Your task to perform on an android device: Find coffee shops on Maps Image 0: 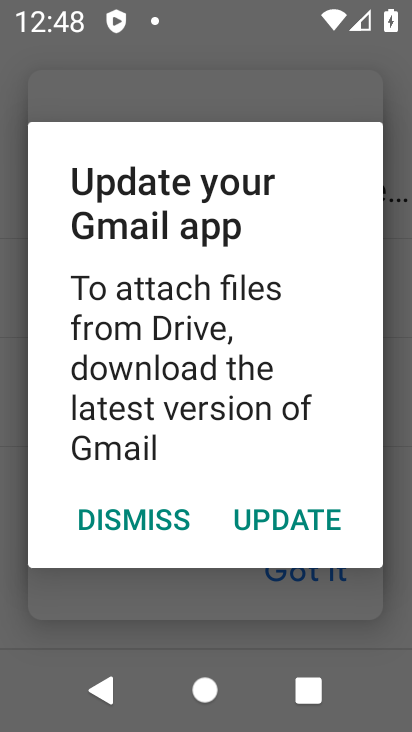
Step 0: press home button
Your task to perform on an android device: Find coffee shops on Maps Image 1: 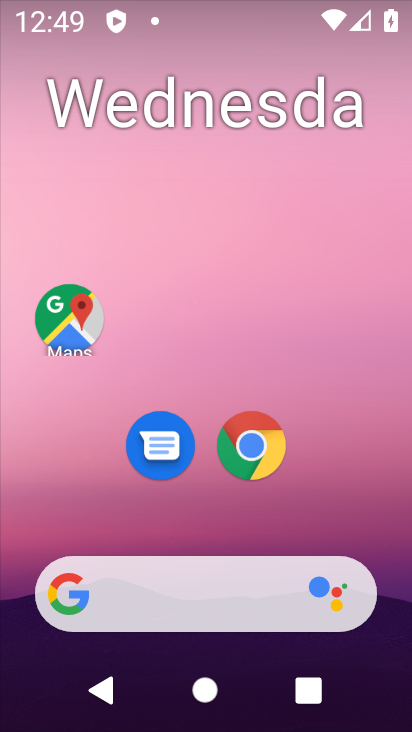
Step 1: drag from (331, 407) to (237, 0)
Your task to perform on an android device: Find coffee shops on Maps Image 2: 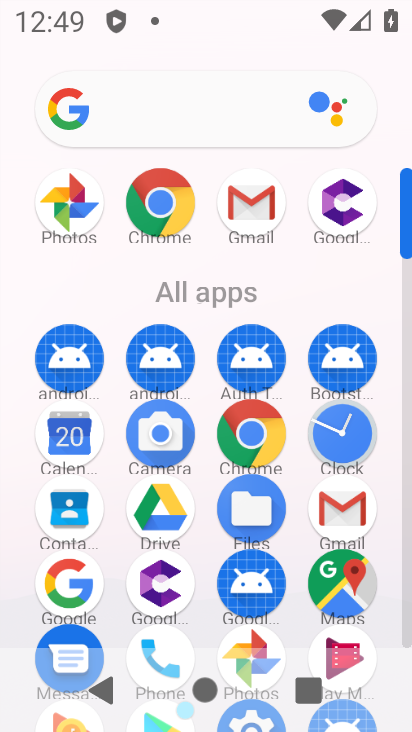
Step 2: click (348, 579)
Your task to perform on an android device: Find coffee shops on Maps Image 3: 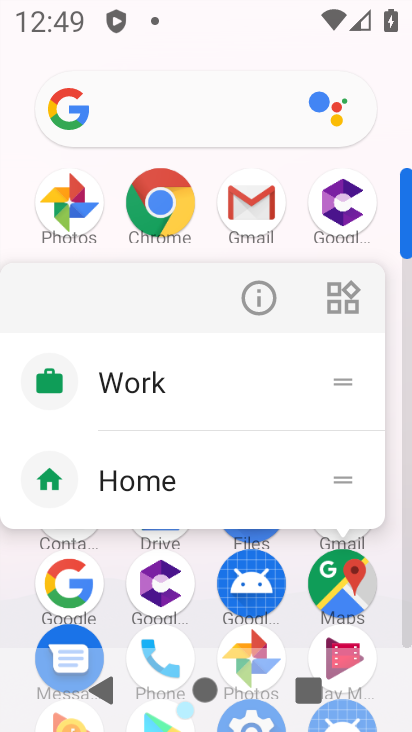
Step 3: click (338, 561)
Your task to perform on an android device: Find coffee shops on Maps Image 4: 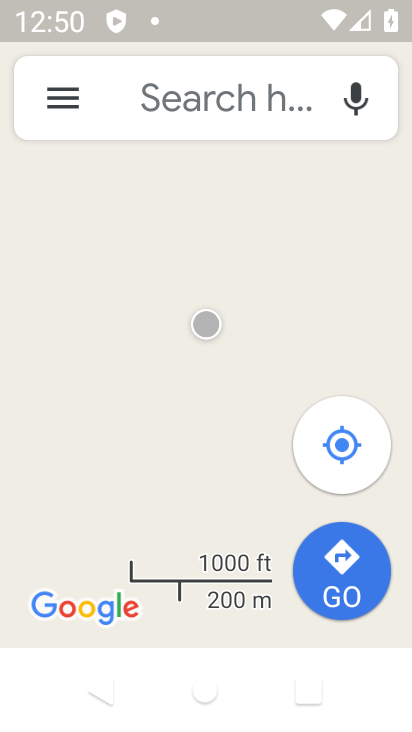
Step 4: click (195, 102)
Your task to perform on an android device: Find coffee shops on Maps Image 5: 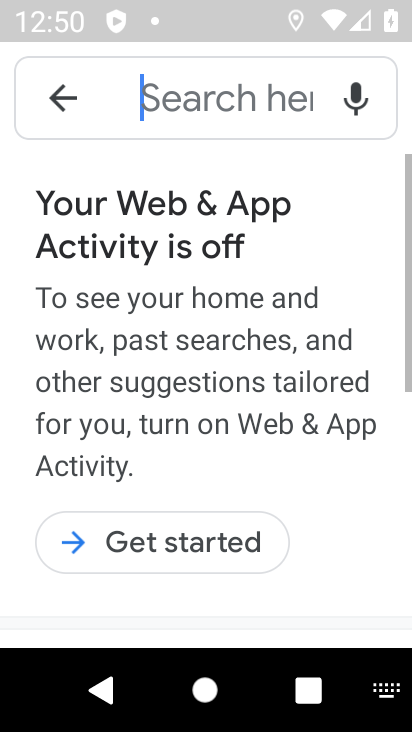
Step 5: type "coffee shops"
Your task to perform on an android device: Find coffee shops on Maps Image 6: 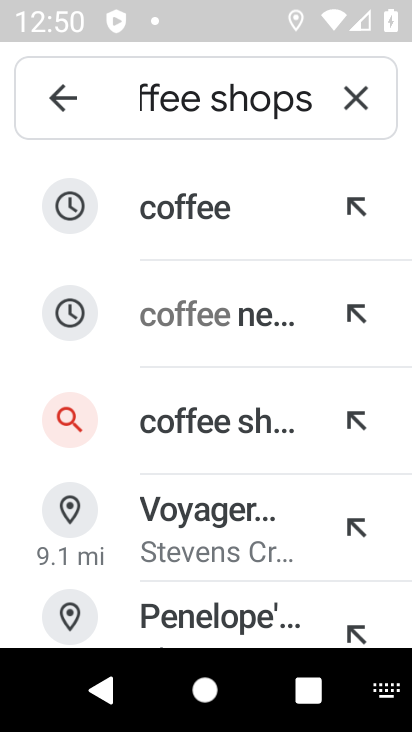
Step 6: press enter
Your task to perform on an android device: Find coffee shops on Maps Image 7: 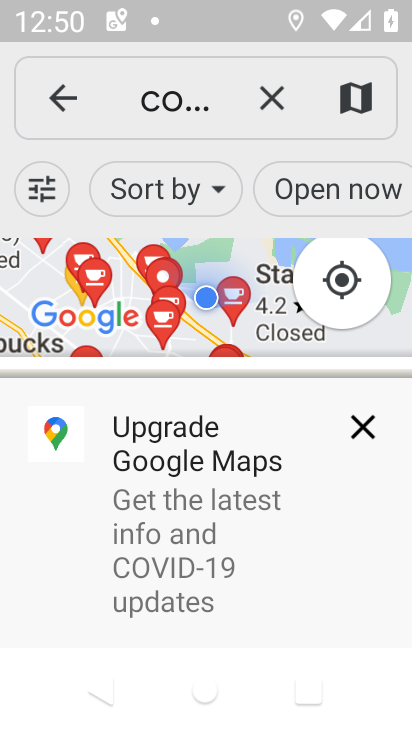
Step 7: click (360, 431)
Your task to perform on an android device: Find coffee shops on Maps Image 8: 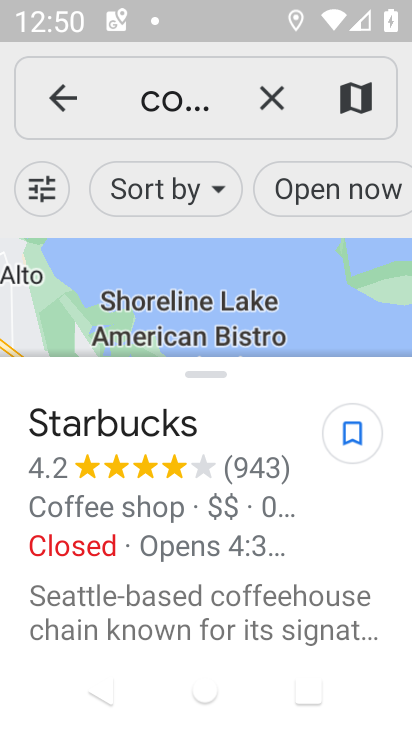
Step 8: task complete